Your task to perform on an android device: all mails in gmail Image 0: 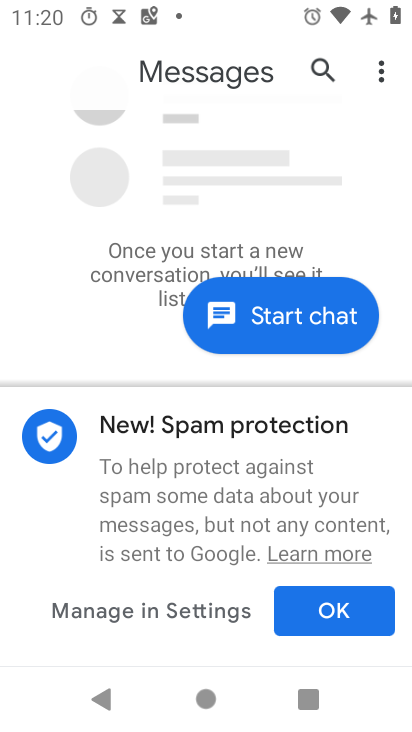
Step 0: press back button
Your task to perform on an android device: all mails in gmail Image 1: 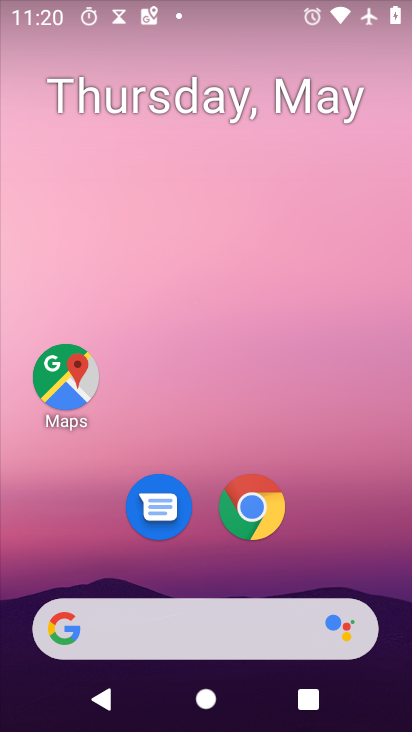
Step 1: drag from (357, 519) to (260, 11)
Your task to perform on an android device: all mails in gmail Image 2: 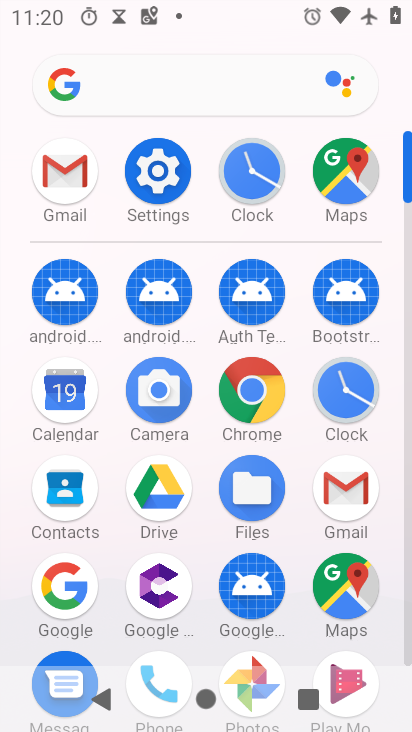
Step 2: click (346, 483)
Your task to perform on an android device: all mails in gmail Image 3: 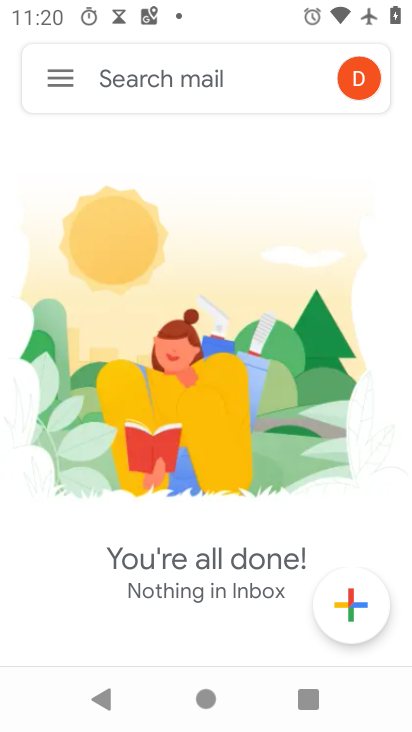
Step 3: click (50, 84)
Your task to perform on an android device: all mails in gmail Image 4: 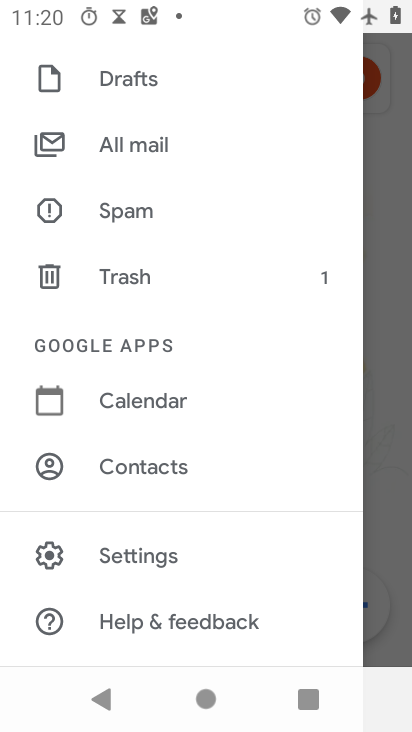
Step 4: click (130, 133)
Your task to perform on an android device: all mails in gmail Image 5: 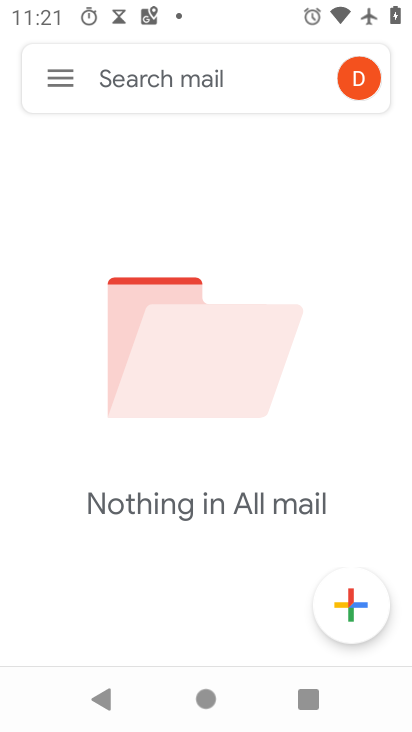
Step 5: task complete